Your task to perform on an android device: clear history in the chrome app Image 0: 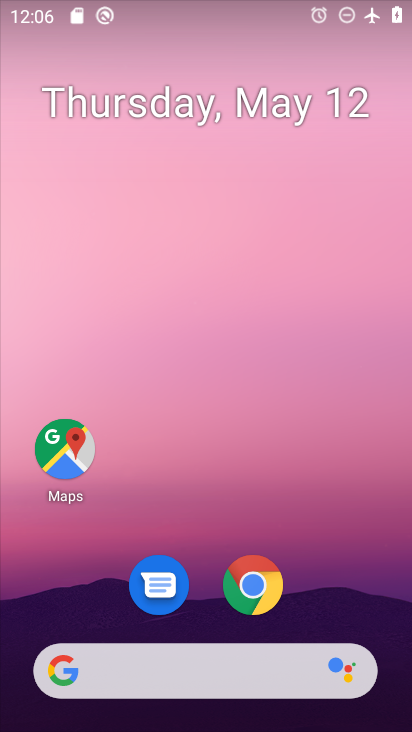
Step 0: click (266, 578)
Your task to perform on an android device: clear history in the chrome app Image 1: 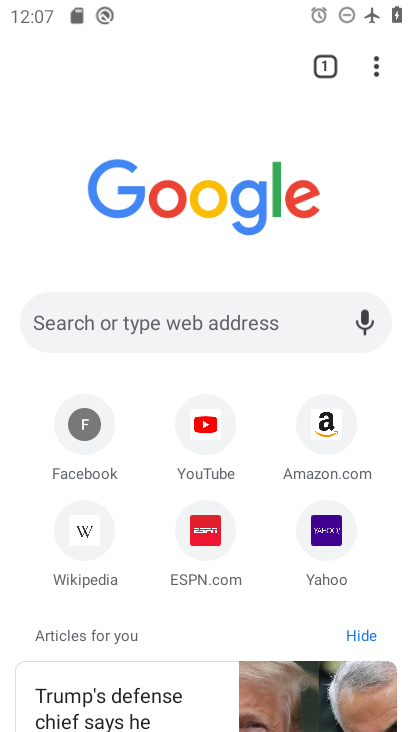
Step 1: click (377, 68)
Your task to perform on an android device: clear history in the chrome app Image 2: 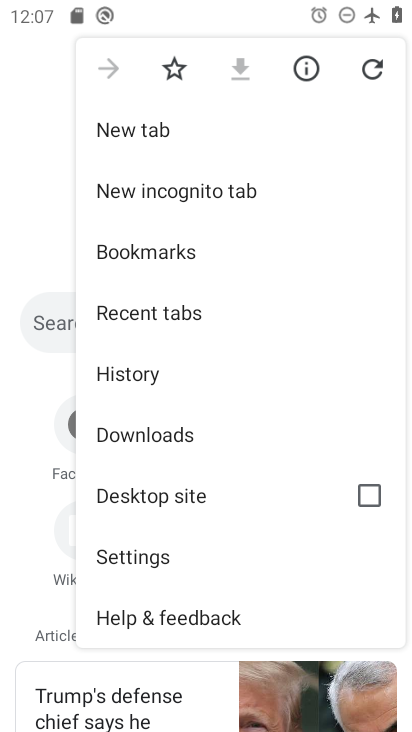
Step 2: click (173, 545)
Your task to perform on an android device: clear history in the chrome app Image 3: 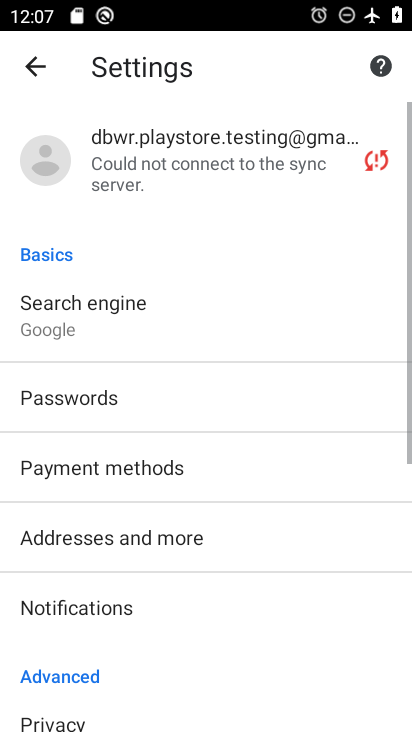
Step 3: drag from (181, 611) to (208, 331)
Your task to perform on an android device: clear history in the chrome app Image 4: 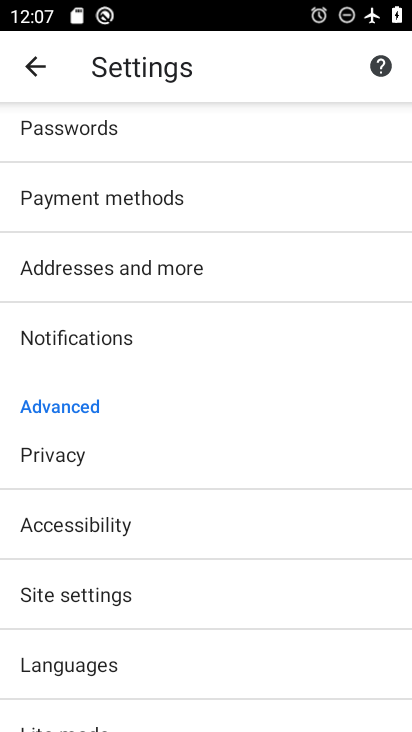
Step 4: click (96, 450)
Your task to perform on an android device: clear history in the chrome app Image 5: 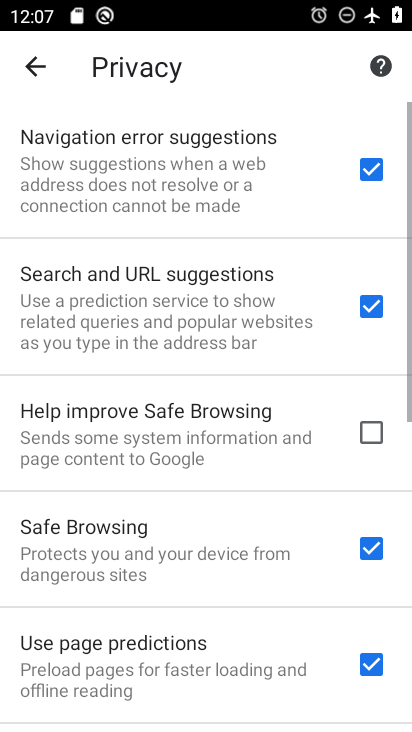
Step 5: drag from (241, 611) to (250, 116)
Your task to perform on an android device: clear history in the chrome app Image 6: 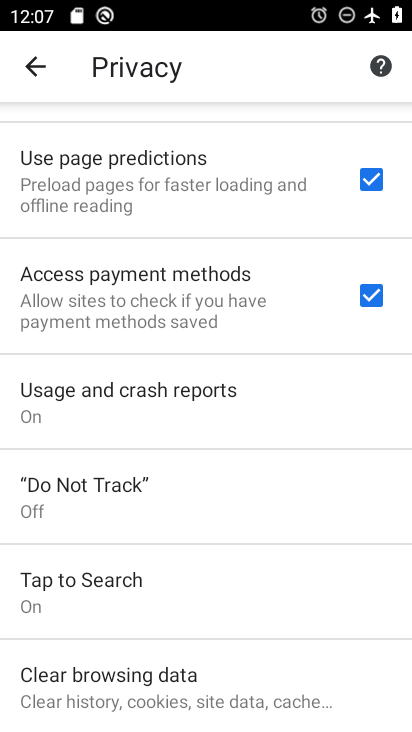
Step 6: drag from (218, 572) to (227, 394)
Your task to perform on an android device: clear history in the chrome app Image 7: 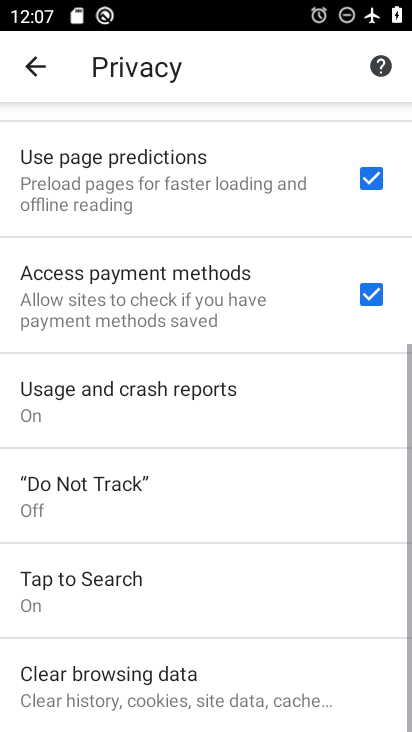
Step 7: click (206, 680)
Your task to perform on an android device: clear history in the chrome app Image 8: 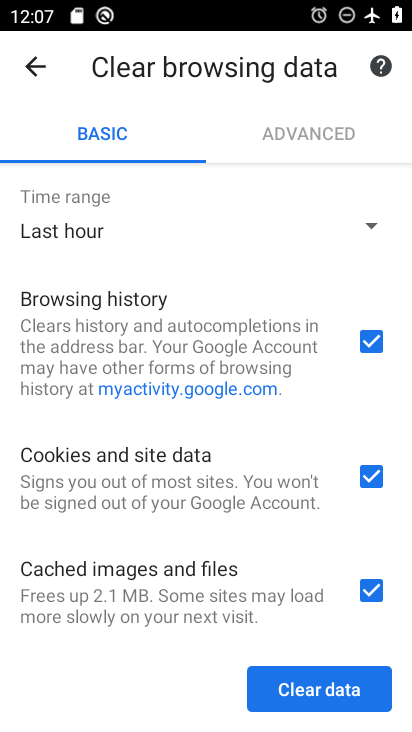
Step 8: click (368, 467)
Your task to perform on an android device: clear history in the chrome app Image 9: 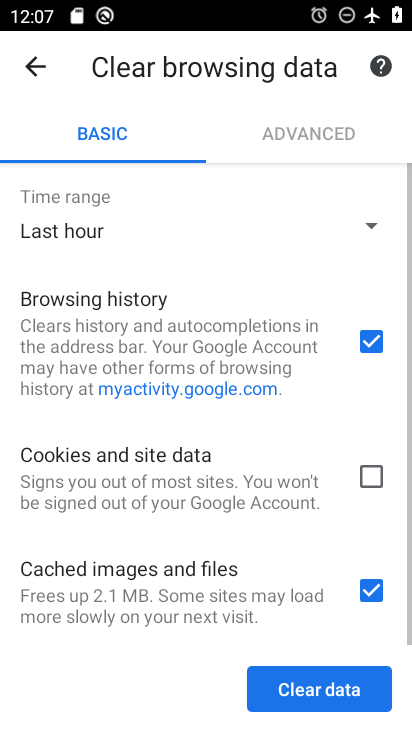
Step 9: click (379, 593)
Your task to perform on an android device: clear history in the chrome app Image 10: 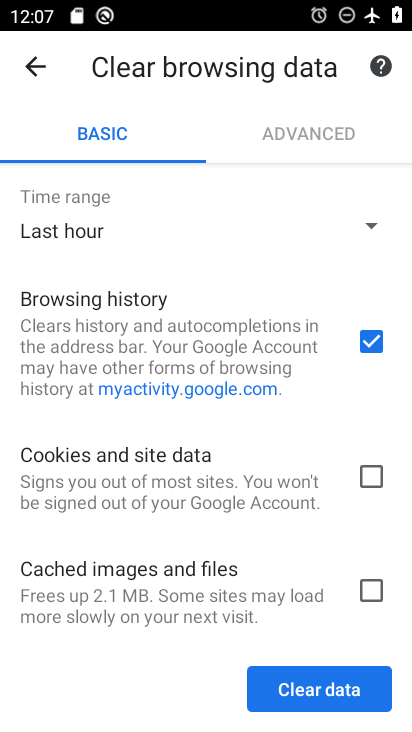
Step 10: click (329, 699)
Your task to perform on an android device: clear history in the chrome app Image 11: 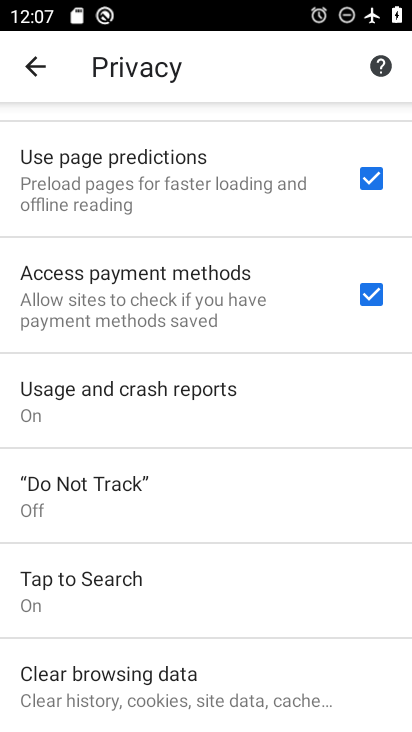
Step 11: task complete